Your task to perform on an android device: turn off picture-in-picture Image 0: 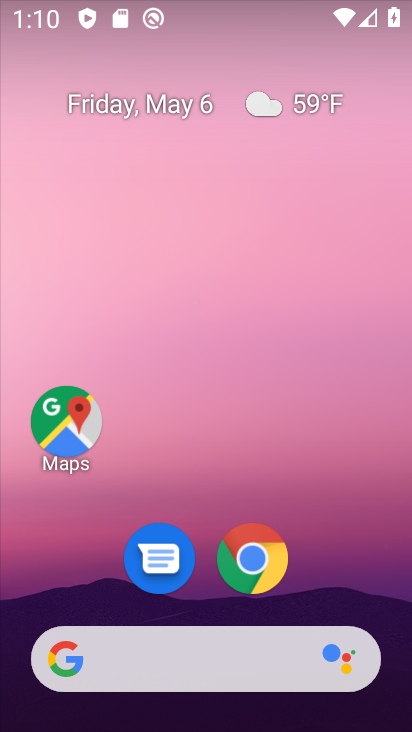
Step 0: drag from (215, 726) to (218, 174)
Your task to perform on an android device: turn off picture-in-picture Image 1: 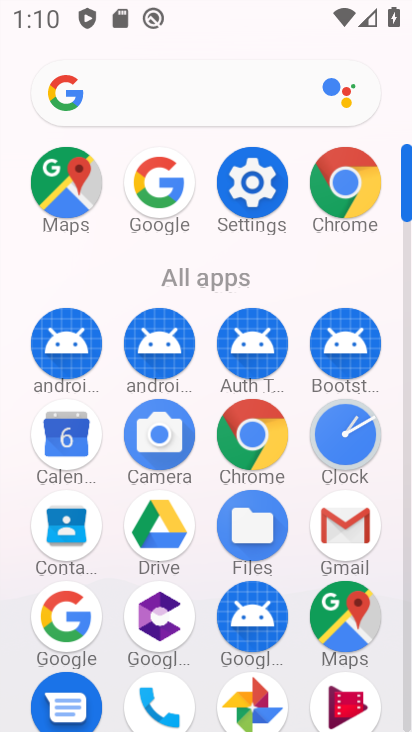
Step 1: click (256, 178)
Your task to perform on an android device: turn off picture-in-picture Image 2: 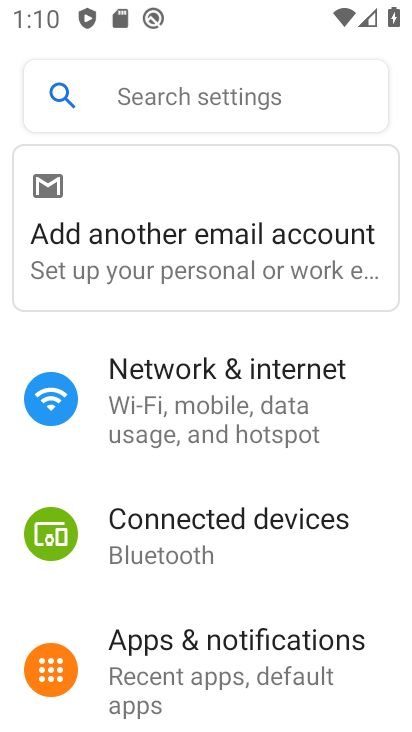
Step 2: drag from (218, 702) to (219, 591)
Your task to perform on an android device: turn off picture-in-picture Image 3: 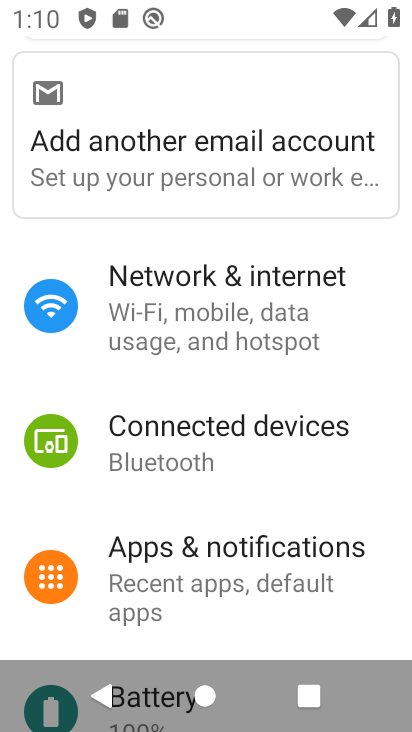
Step 3: click (231, 559)
Your task to perform on an android device: turn off picture-in-picture Image 4: 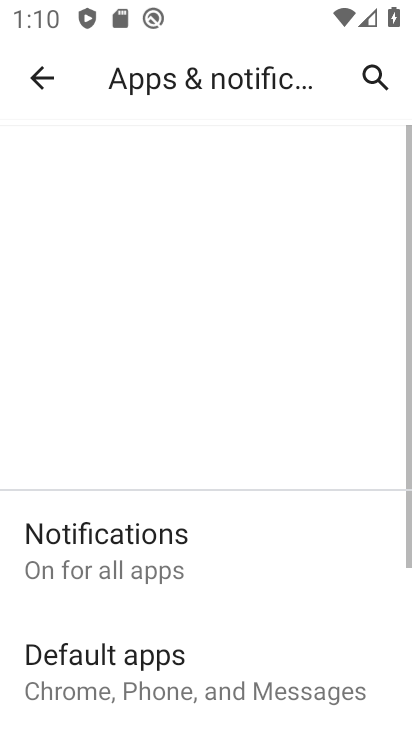
Step 4: drag from (237, 643) to (262, 386)
Your task to perform on an android device: turn off picture-in-picture Image 5: 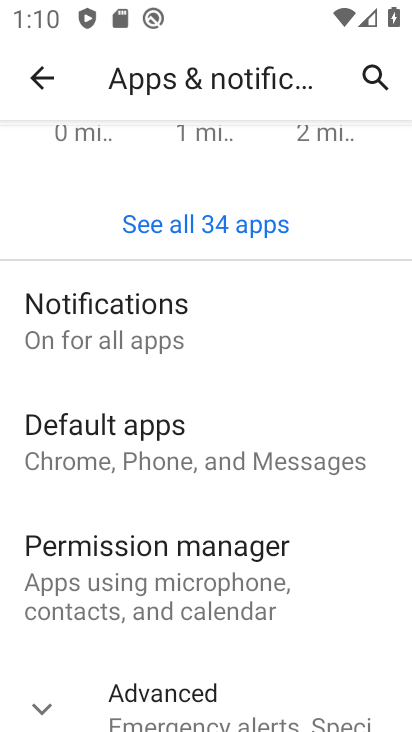
Step 5: drag from (232, 672) to (239, 486)
Your task to perform on an android device: turn off picture-in-picture Image 6: 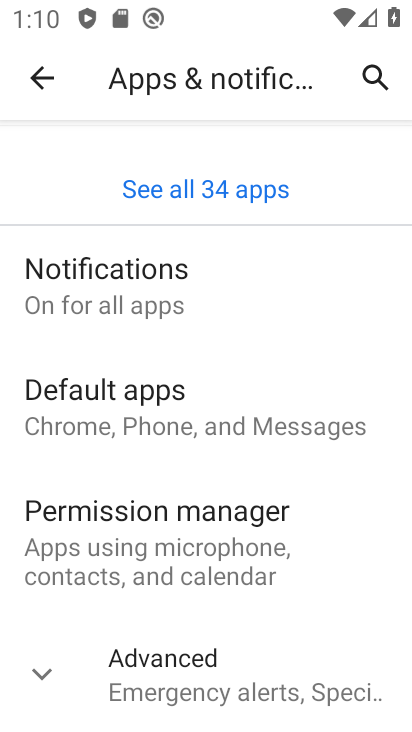
Step 6: click (166, 670)
Your task to perform on an android device: turn off picture-in-picture Image 7: 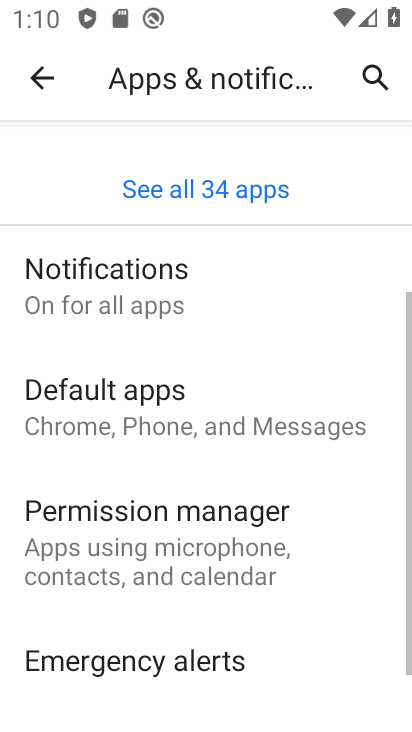
Step 7: drag from (276, 693) to (281, 328)
Your task to perform on an android device: turn off picture-in-picture Image 8: 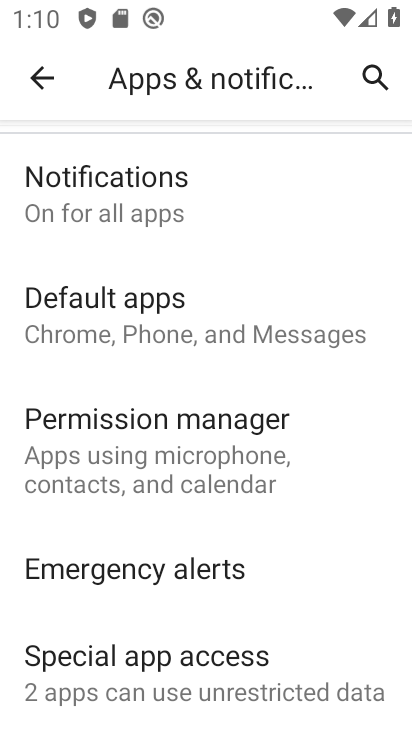
Step 8: click (186, 683)
Your task to perform on an android device: turn off picture-in-picture Image 9: 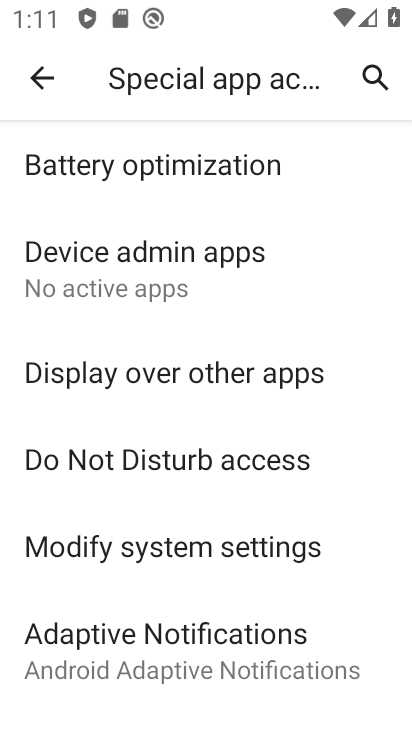
Step 9: drag from (194, 675) to (199, 399)
Your task to perform on an android device: turn off picture-in-picture Image 10: 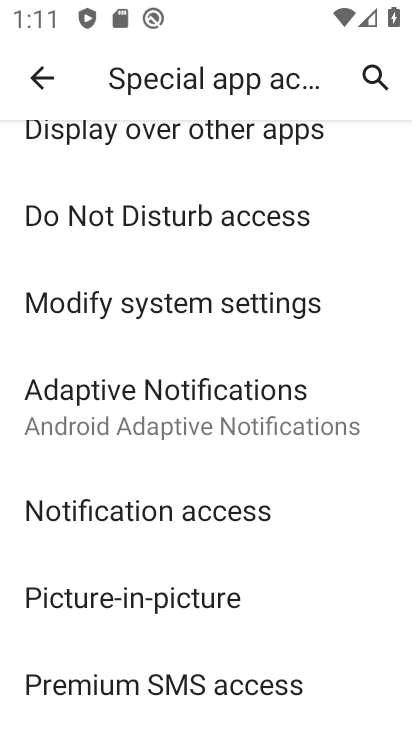
Step 10: click (146, 599)
Your task to perform on an android device: turn off picture-in-picture Image 11: 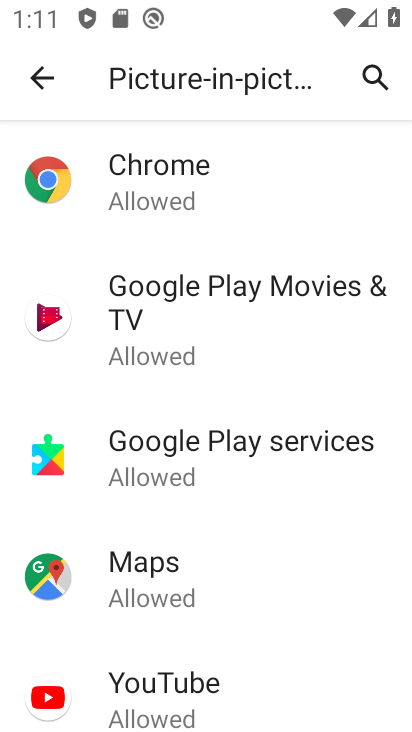
Step 11: click (146, 686)
Your task to perform on an android device: turn off picture-in-picture Image 12: 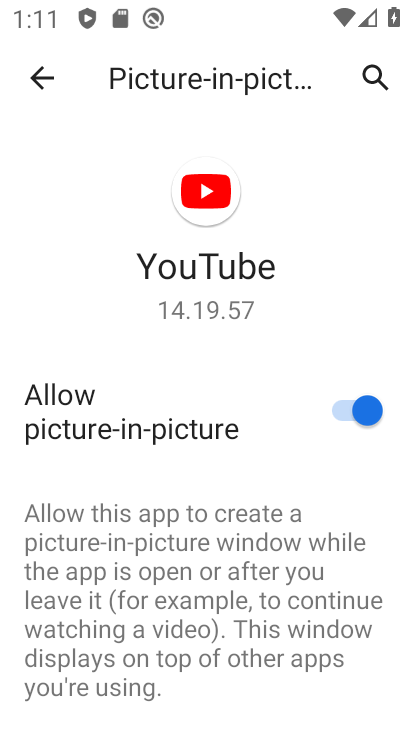
Step 12: click (344, 417)
Your task to perform on an android device: turn off picture-in-picture Image 13: 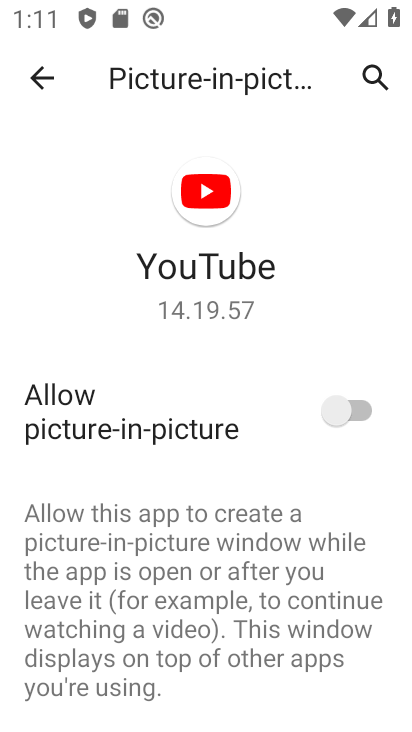
Step 13: task complete